Your task to perform on an android device: check out phone information Image 0: 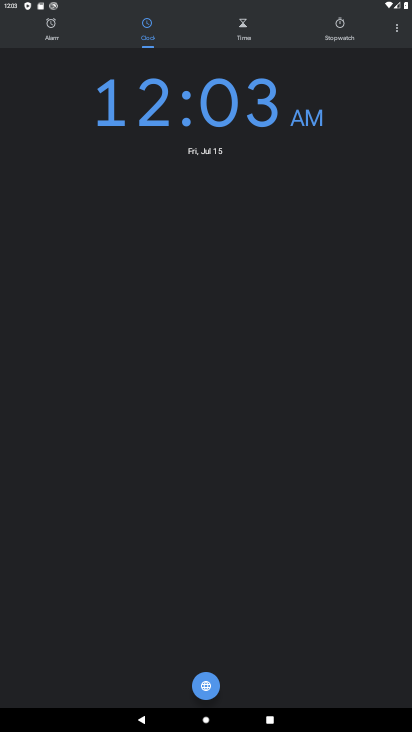
Step 0: press home button
Your task to perform on an android device: check out phone information Image 1: 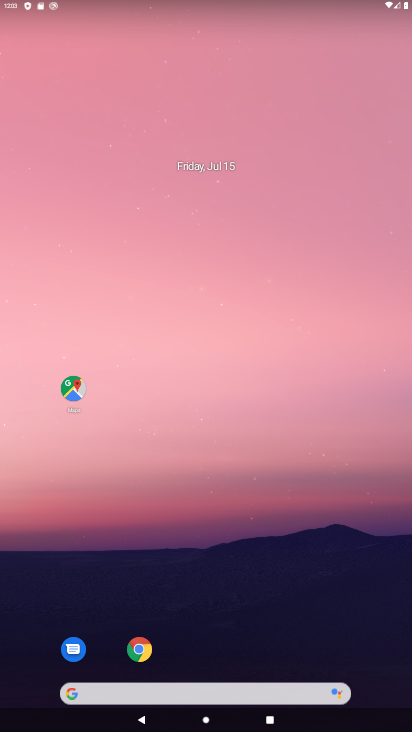
Step 1: drag from (248, 627) to (206, 95)
Your task to perform on an android device: check out phone information Image 2: 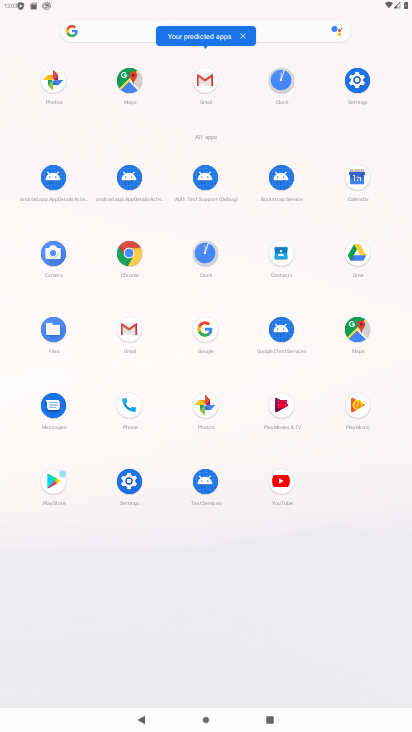
Step 2: click (355, 81)
Your task to perform on an android device: check out phone information Image 3: 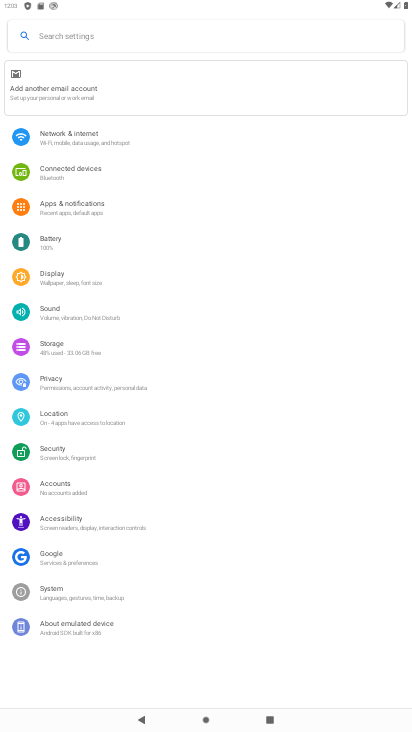
Step 3: click (92, 620)
Your task to perform on an android device: check out phone information Image 4: 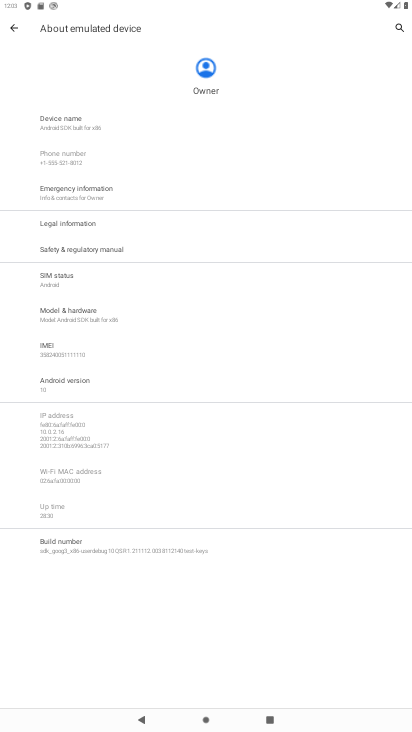
Step 4: task complete